Your task to perform on an android device: Open Chrome and go to settings Image 0: 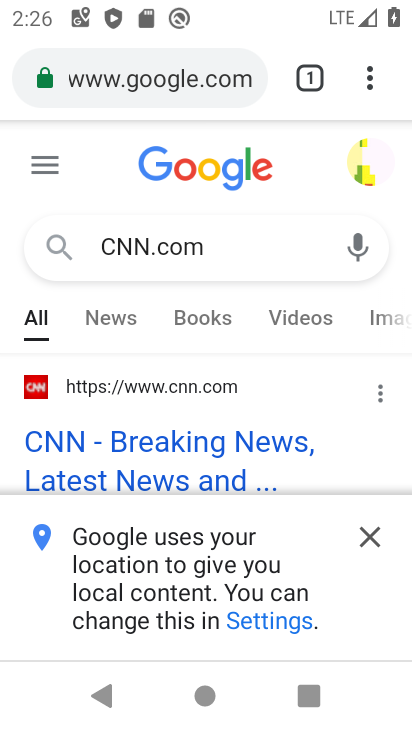
Step 0: press home button
Your task to perform on an android device: Open Chrome and go to settings Image 1: 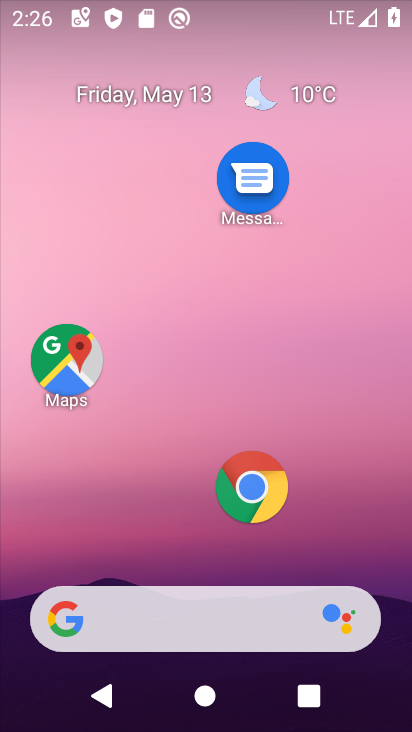
Step 1: click (251, 489)
Your task to perform on an android device: Open Chrome and go to settings Image 2: 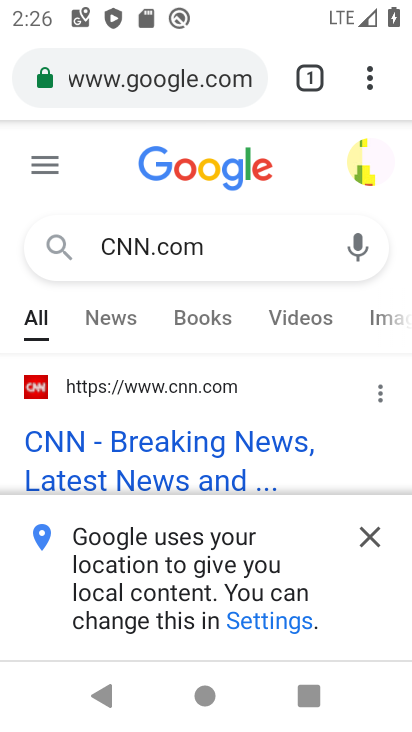
Step 2: click (368, 78)
Your task to perform on an android device: Open Chrome and go to settings Image 3: 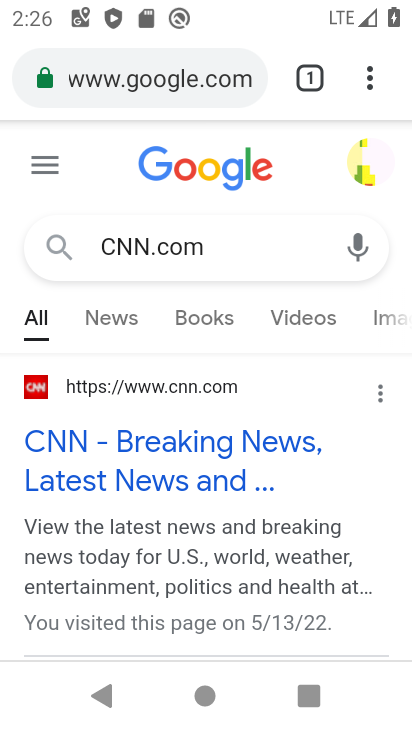
Step 3: click (368, 78)
Your task to perform on an android device: Open Chrome and go to settings Image 4: 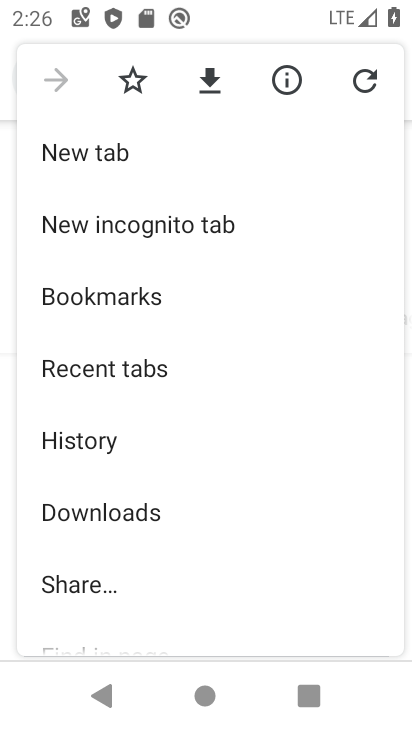
Step 4: drag from (265, 569) to (265, 241)
Your task to perform on an android device: Open Chrome and go to settings Image 5: 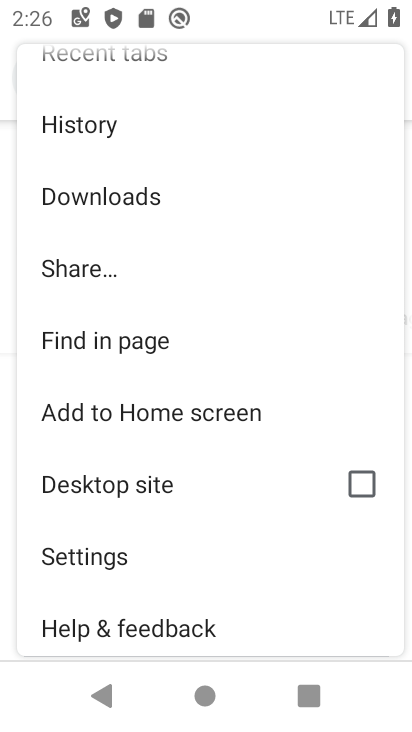
Step 5: click (73, 555)
Your task to perform on an android device: Open Chrome and go to settings Image 6: 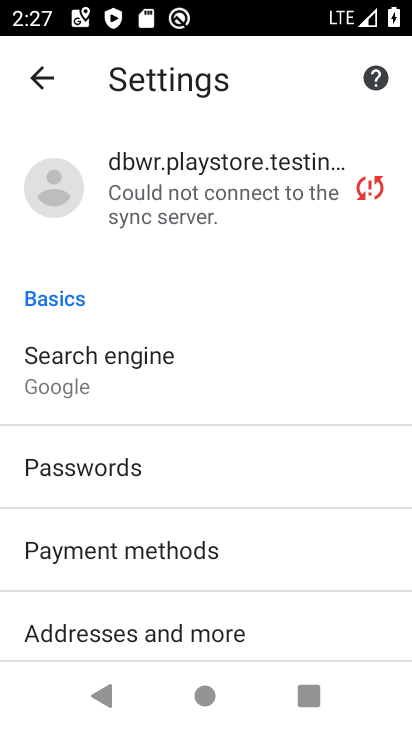
Step 6: task complete